Your task to perform on an android device: check the backup settings in the google photos Image 0: 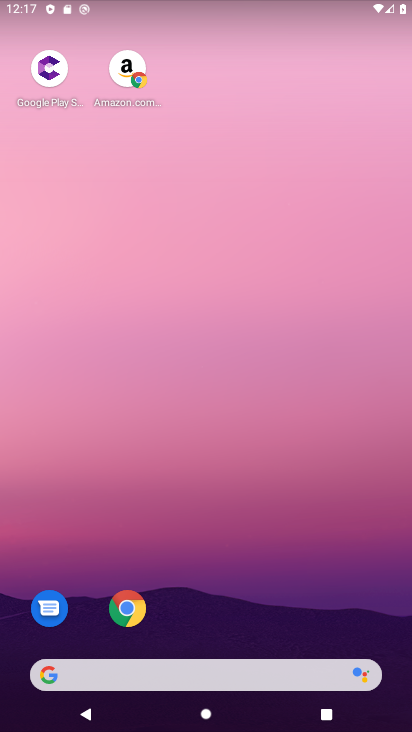
Step 0: drag from (297, 546) to (150, 0)
Your task to perform on an android device: check the backup settings in the google photos Image 1: 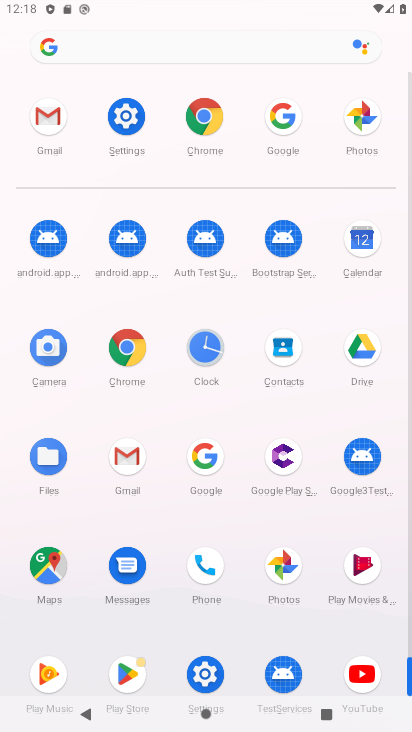
Step 1: click (353, 115)
Your task to perform on an android device: check the backup settings in the google photos Image 2: 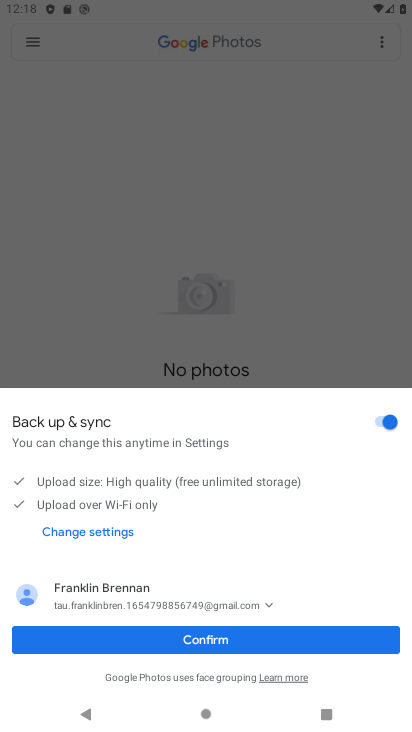
Step 2: click (197, 637)
Your task to perform on an android device: check the backup settings in the google photos Image 3: 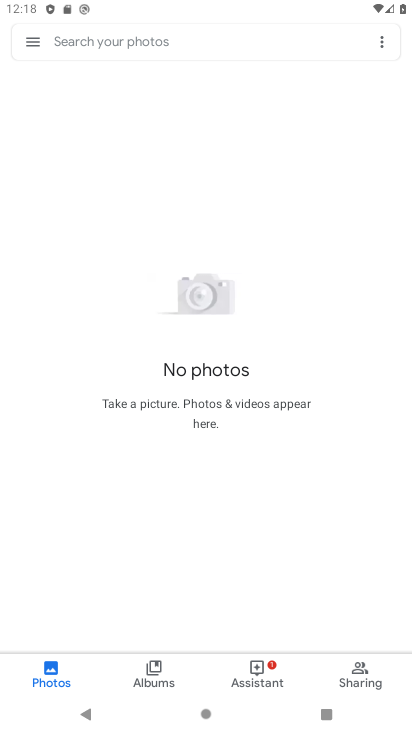
Step 3: click (45, 50)
Your task to perform on an android device: check the backup settings in the google photos Image 4: 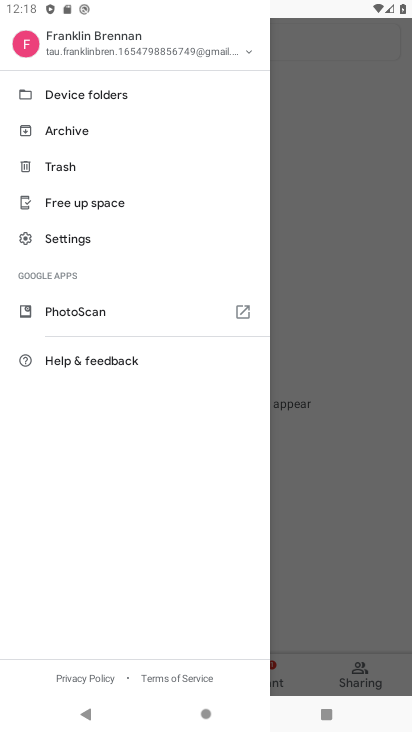
Step 4: click (69, 245)
Your task to perform on an android device: check the backup settings in the google photos Image 5: 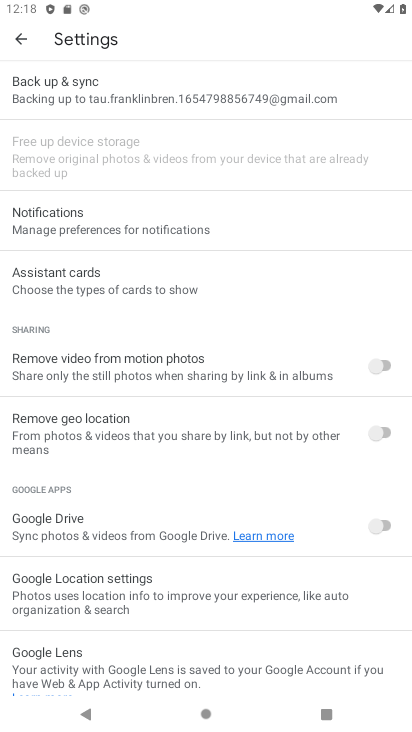
Step 5: click (54, 88)
Your task to perform on an android device: check the backup settings in the google photos Image 6: 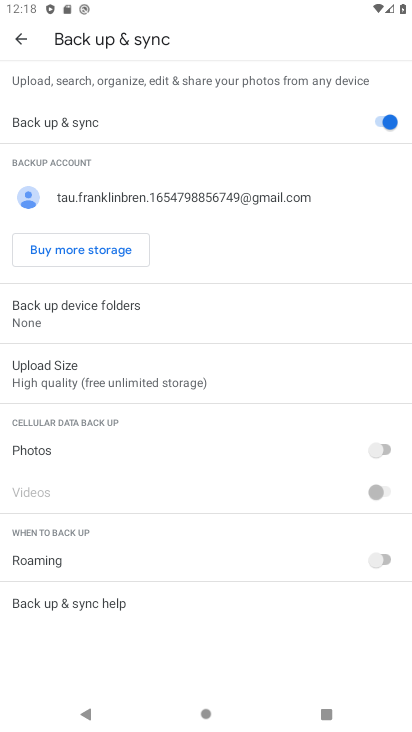
Step 6: task complete